Your task to perform on an android device: Go to CNN.com Image 0: 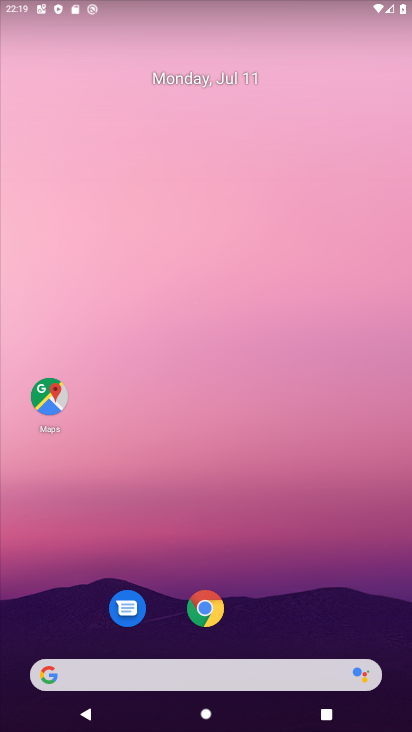
Step 0: click (202, 608)
Your task to perform on an android device: Go to CNN.com Image 1: 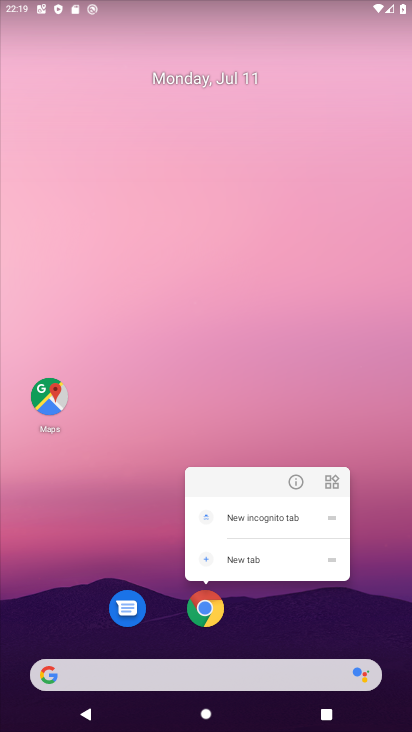
Step 1: click (118, 681)
Your task to perform on an android device: Go to CNN.com Image 2: 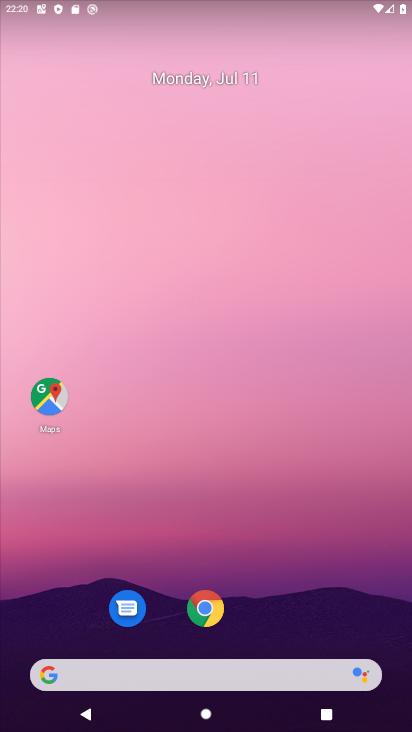
Step 2: click (114, 658)
Your task to perform on an android device: Go to CNN.com Image 3: 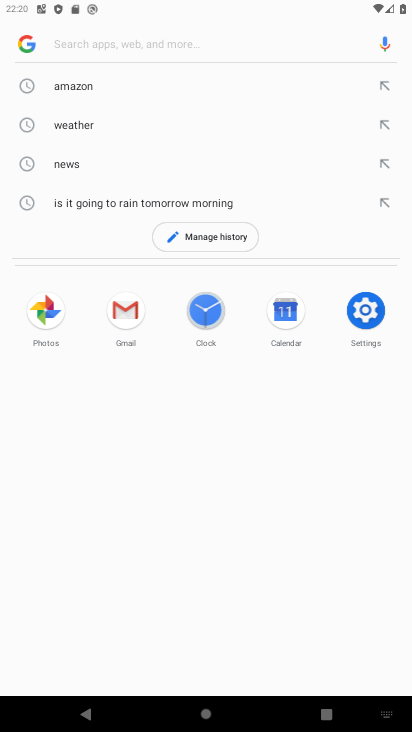
Step 3: type " CNN.com"
Your task to perform on an android device: Go to CNN.com Image 4: 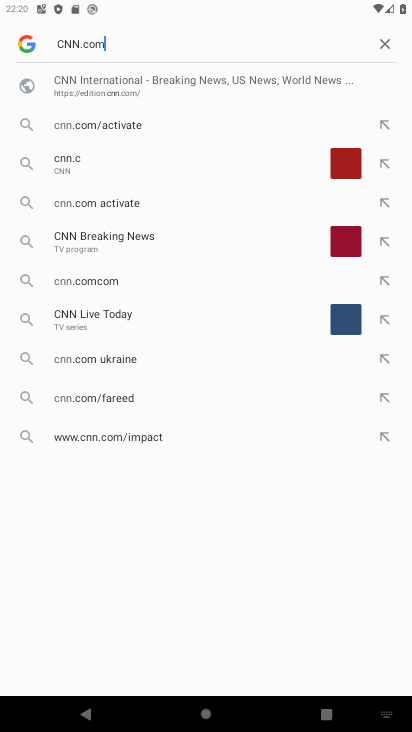
Step 4: type ""
Your task to perform on an android device: Go to CNN.com Image 5: 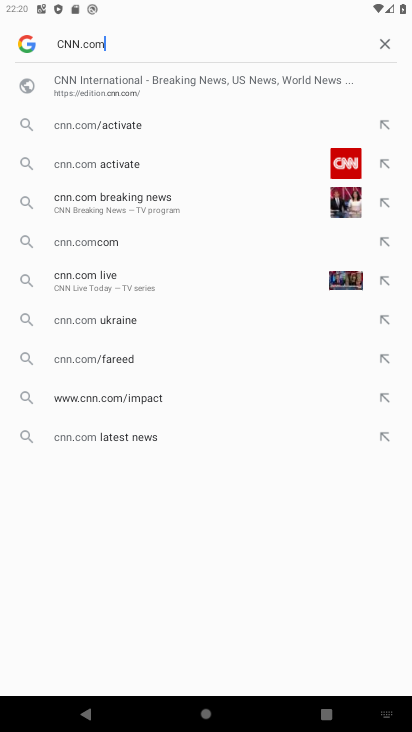
Step 5: type ""
Your task to perform on an android device: Go to CNN.com Image 6: 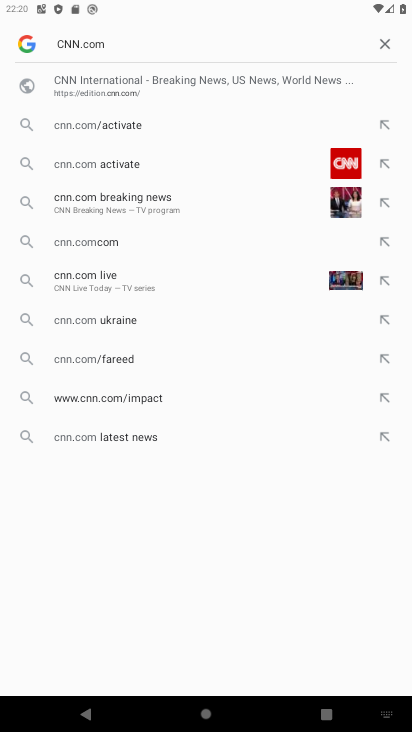
Step 6: type ""
Your task to perform on an android device: Go to CNN.com Image 7: 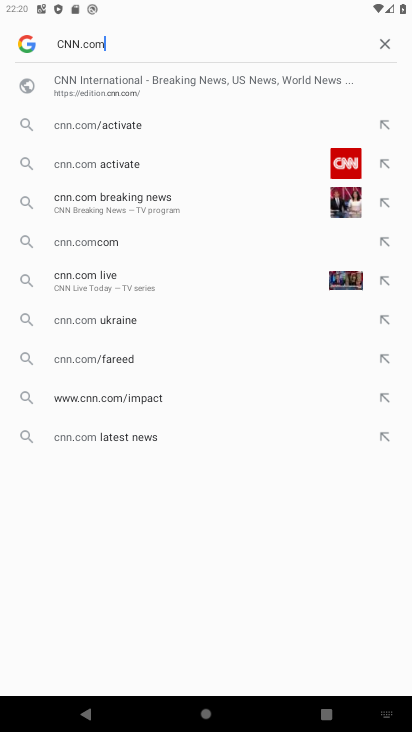
Step 7: task complete